Your task to perform on an android device: What's the weather today? Image 0: 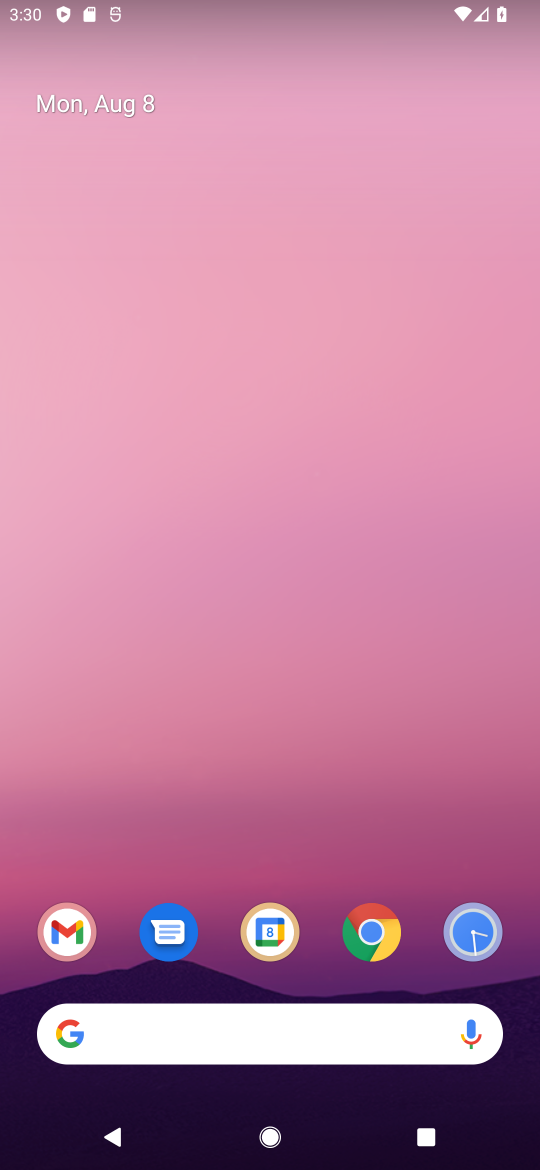
Step 0: click (283, 1020)
Your task to perform on an android device: What's the weather today? Image 1: 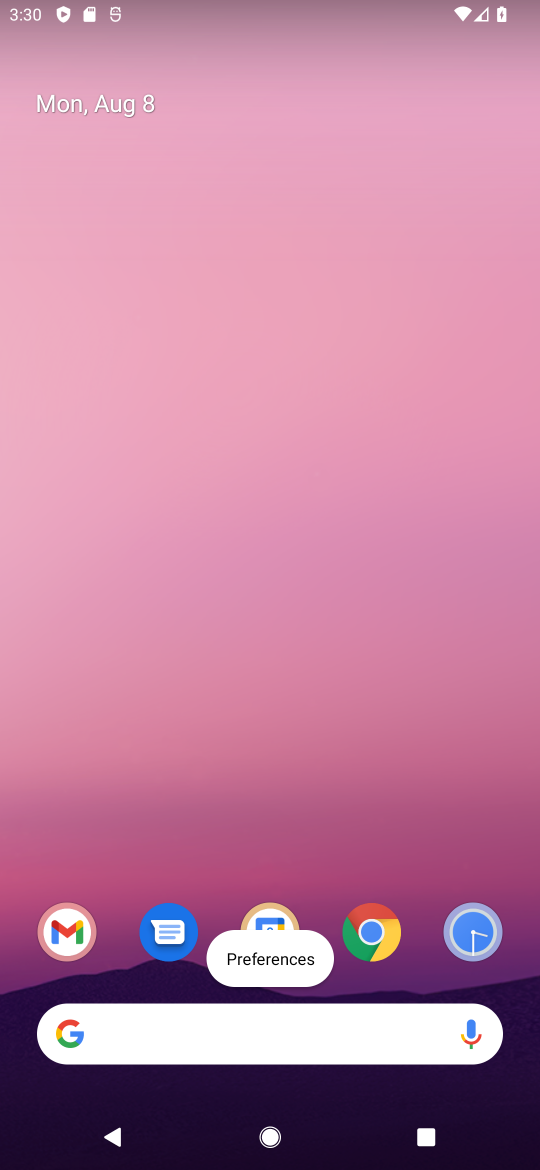
Step 1: click (214, 1041)
Your task to perform on an android device: What's the weather today? Image 2: 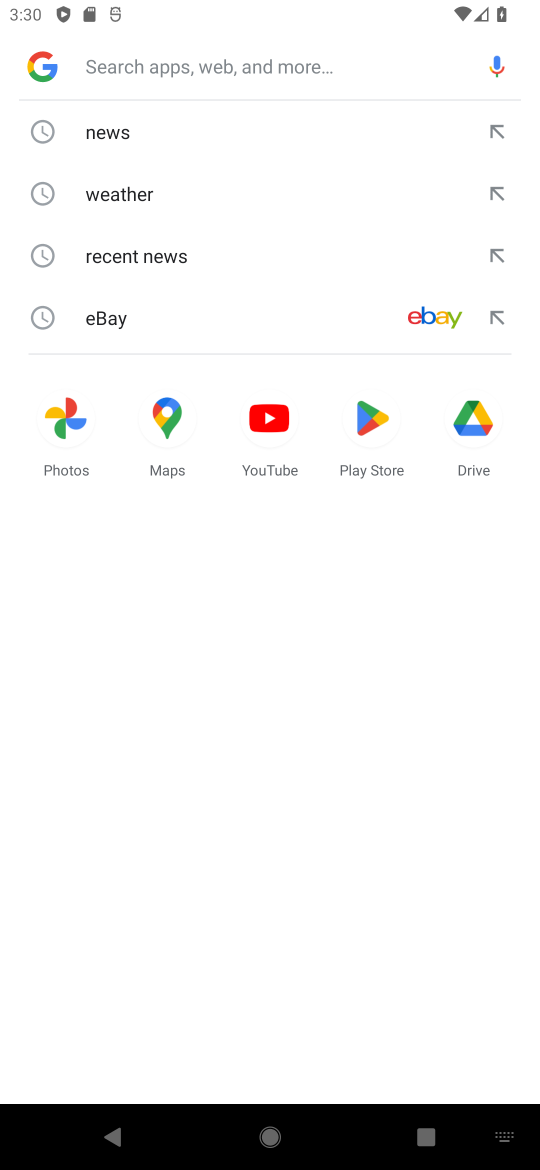
Step 2: type "What's the weather today?"
Your task to perform on an android device: What's the weather today? Image 3: 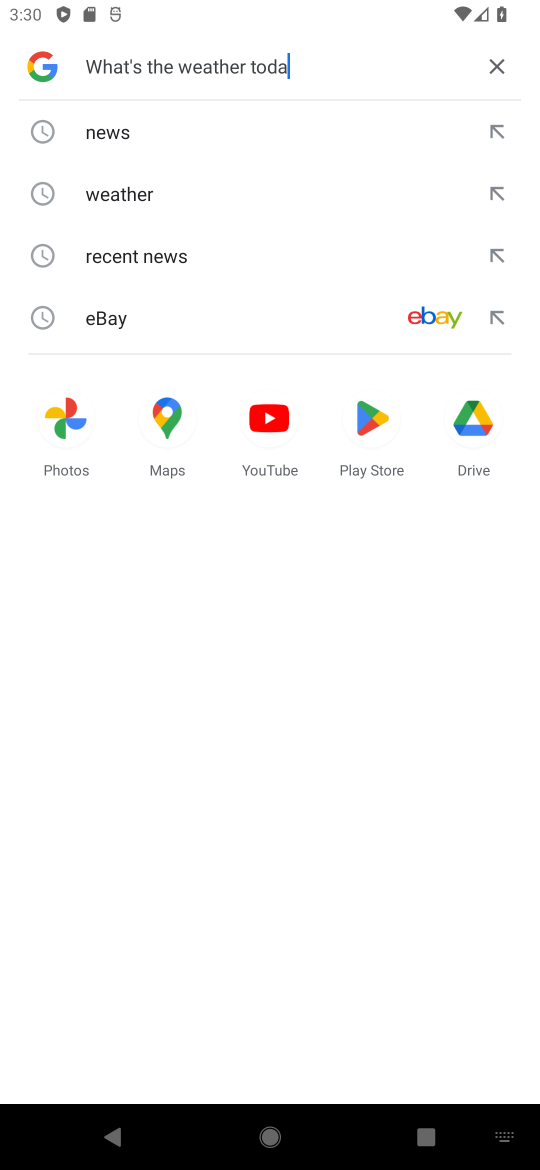
Step 3: type ""
Your task to perform on an android device: What's the weather today? Image 4: 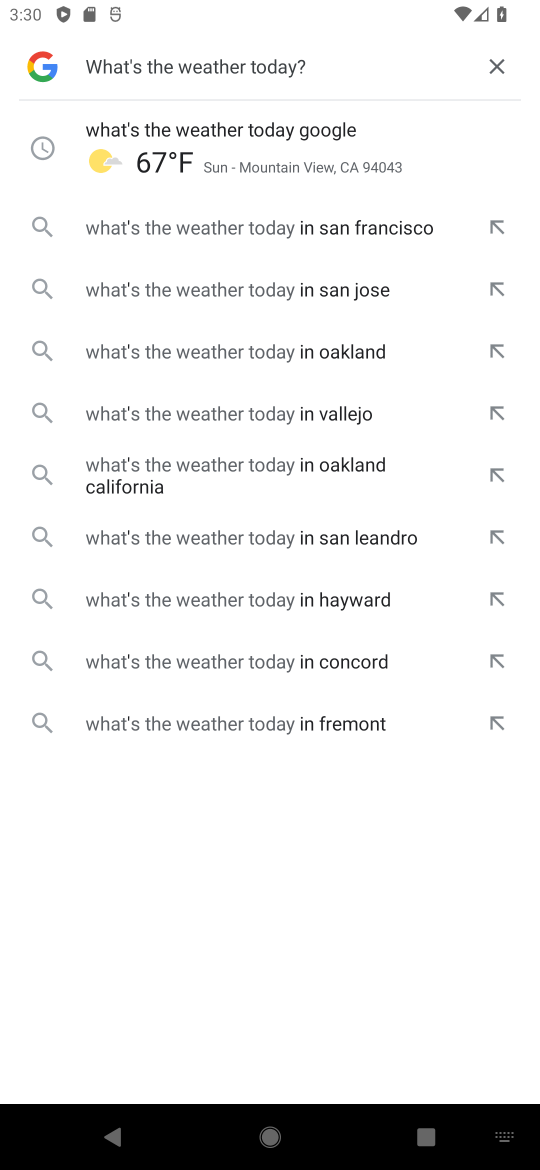
Step 4: click (369, 142)
Your task to perform on an android device: What's the weather today? Image 5: 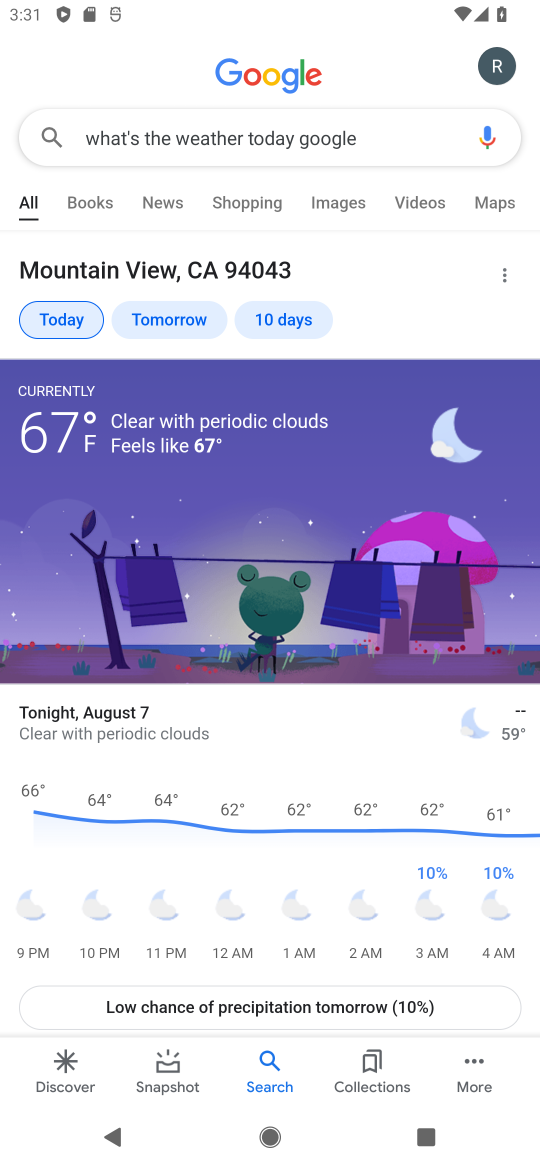
Step 5: task complete